Your task to perform on an android device: Open Google Image 0: 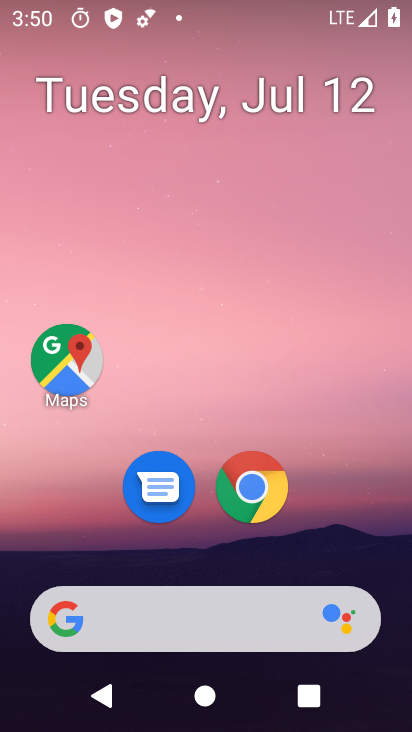
Step 0: drag from (249, 593) to (239, 199)
Your task to perform on an android device: Open Google Image 1: 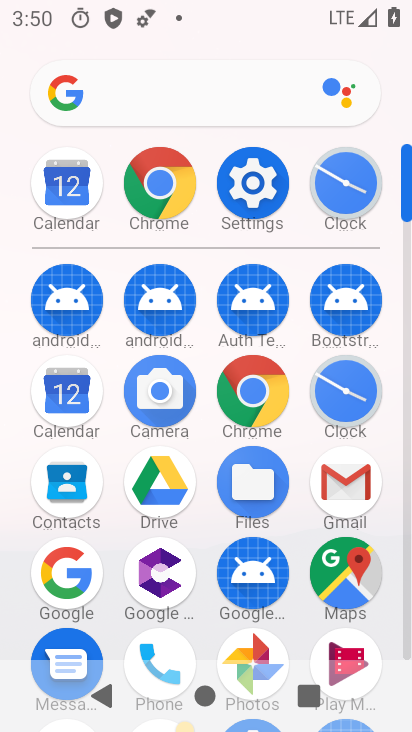
Step 1: drag from (245, 539) to (281, 308)
Your task to perform on an android device: Open Google Image 2: 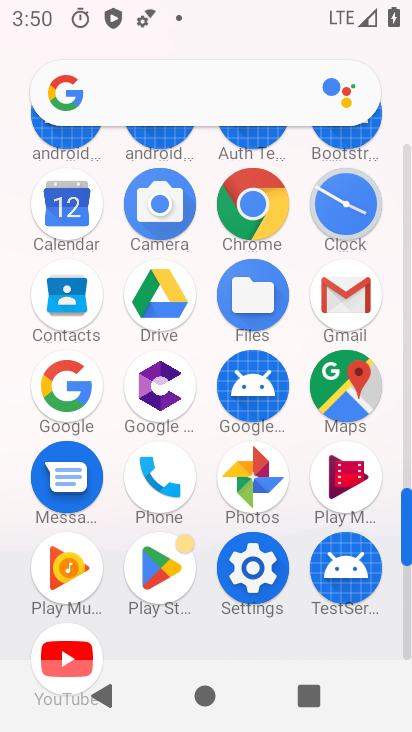
Step 2: click (80, 394)
Your task to perform on an android device: Open Google Image 3: 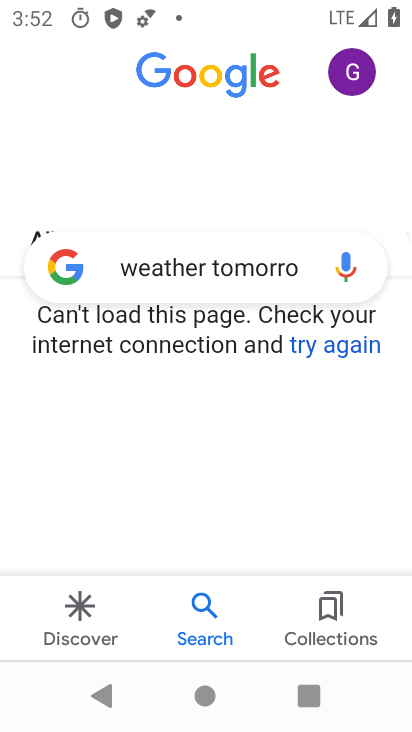
Step 3: task complete